Your task to perform on an android device: Open internet settings Image 0: 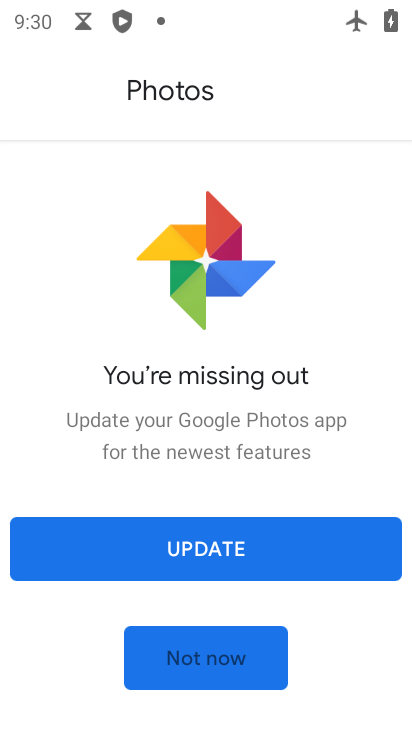
Step 0: press home button
Your task to perform on an android device: Open internet settings Image 1: 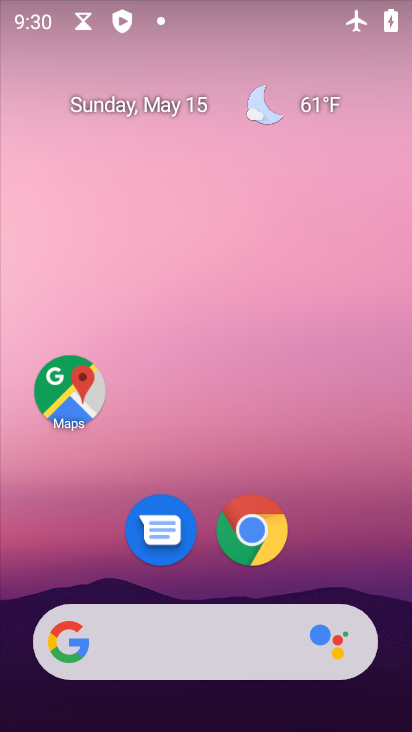
Step 1: drag from (184, 658) to (188, 183)
Your task to perform on an android device: Open internet settings Image 2: 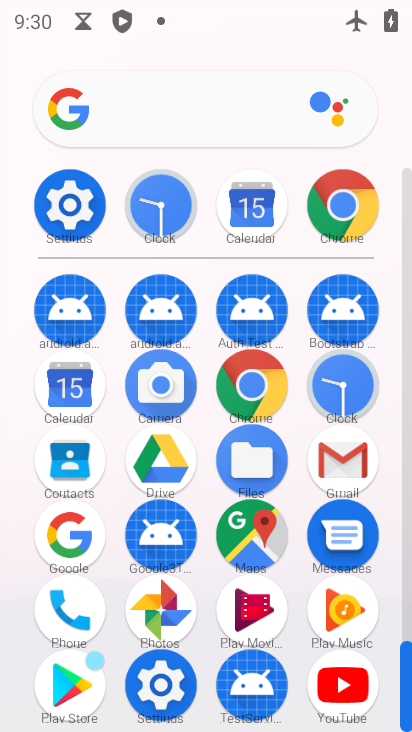
Step 2: click (153, 687)
Your task to perform on an android device: Open internet settings Image 3: 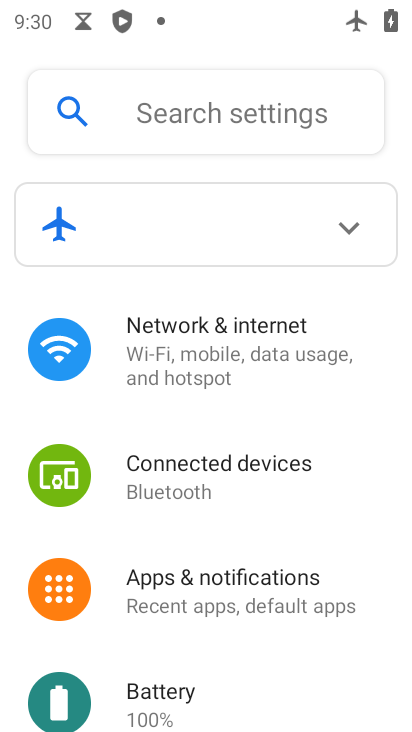
Step 3: click (246, 349)
Your task to perform on an android device: Open internet settings Image 4: 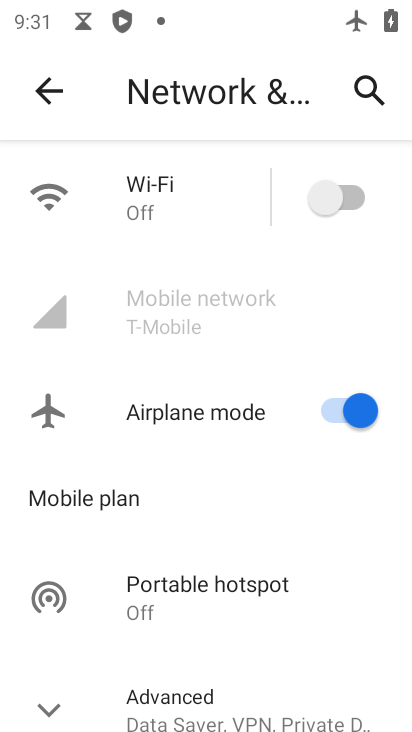
Step 4: task complete